Your task to perform on an android device: Open Maps and search for coffee Image 0: 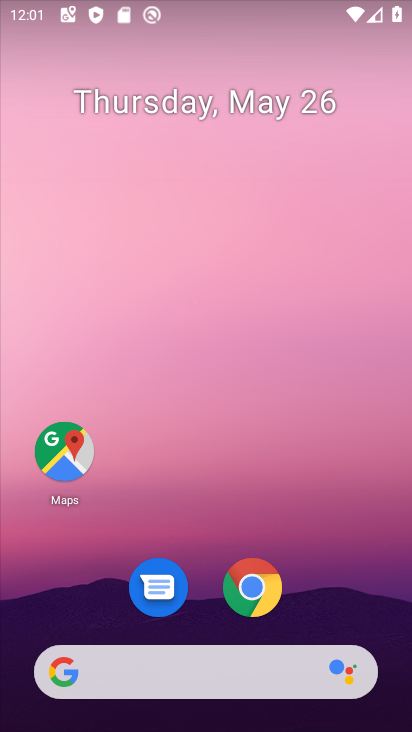
Step 0: click (67, 444)
Your task to perform on an android device: Open Maps and search for coffee Image 1: 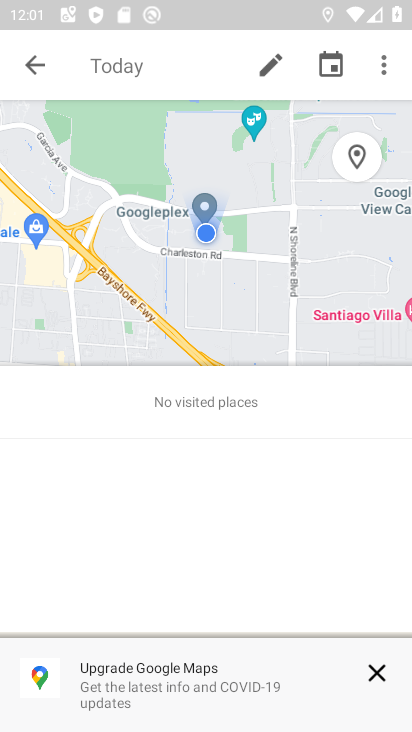
Step 1: click (373, 678)
Your task to perform on an android device: Open Maps and search for coffee Image 2: 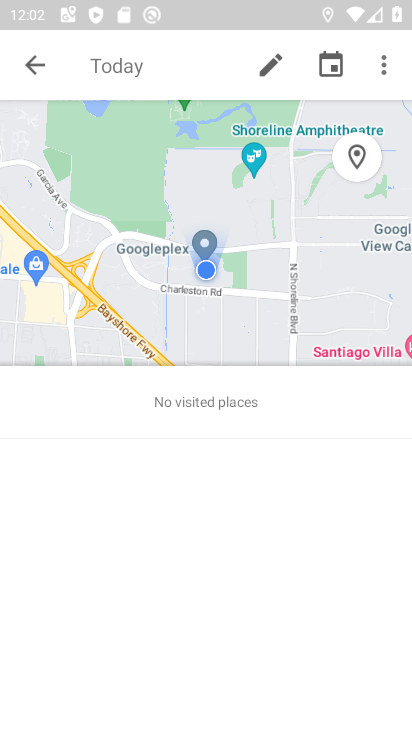
Step 2: click (38, 68)
Your task to perform on an android device: Open Maps and search for coffee Image 3: 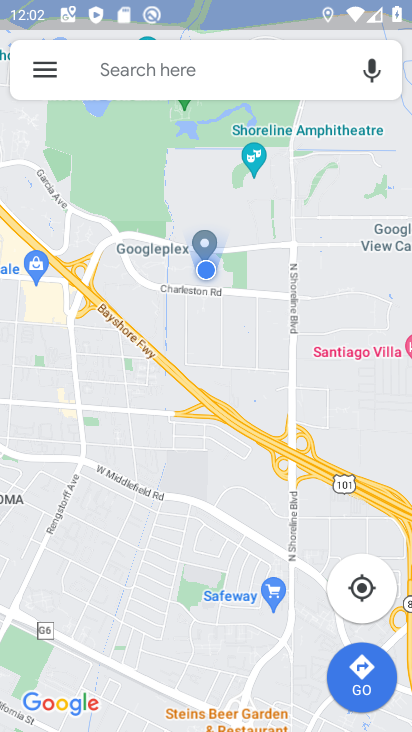
Step 3: click (185, 64)
Your task to perform on an android device: Open Maps and search for coffee Image 4: 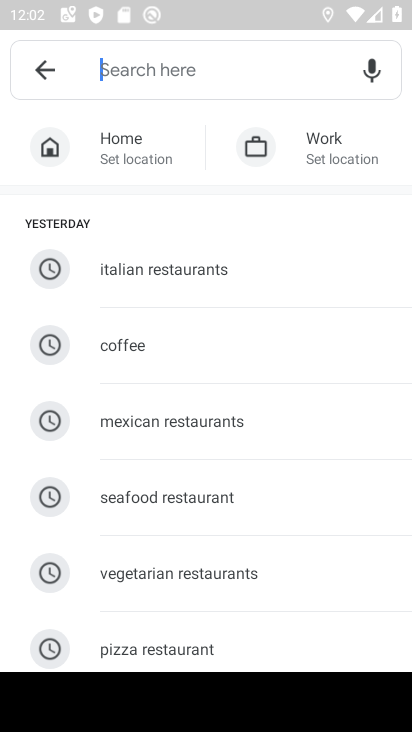
Step 4: click (157, 346)
Your task to perform on an android device: Open Maps and search for coffee Image 5: 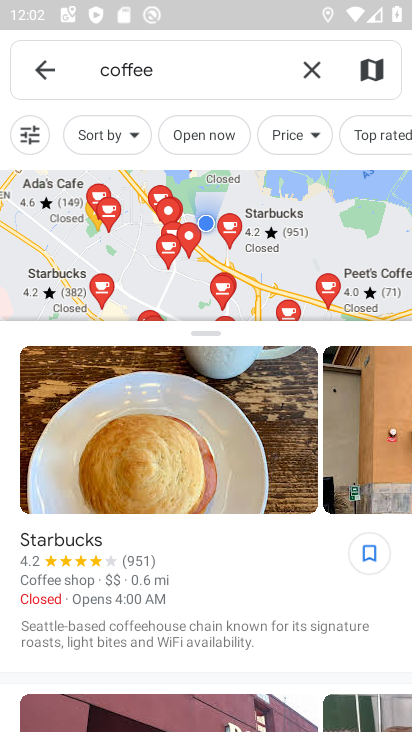
Step 5: task complete